Your task to perform on an android device: Open Chrome and go to settings Image 0: 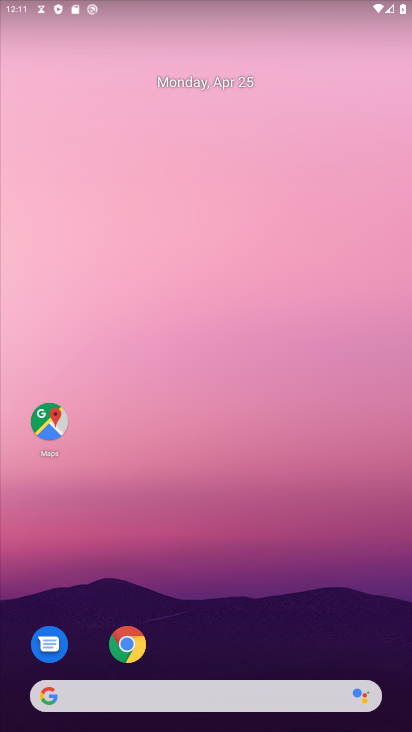
Step 0: click (128, 647)
Your task to perform on an android device: Open Chrome and go to settings Image 1: 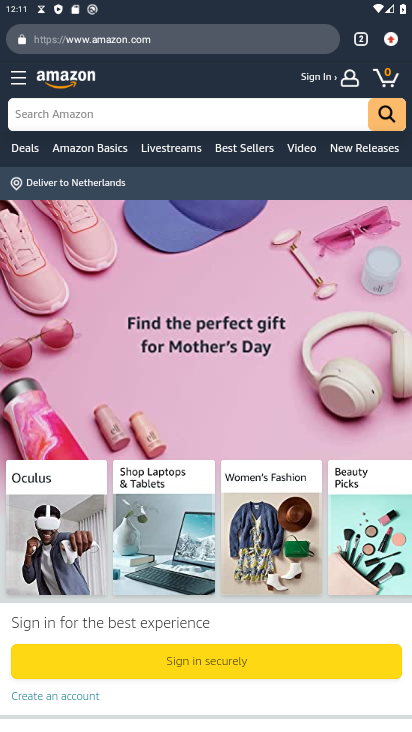
Step 1: task complete